Your task to perform on an android device: Open Chrome and go to the settings page Image 0: 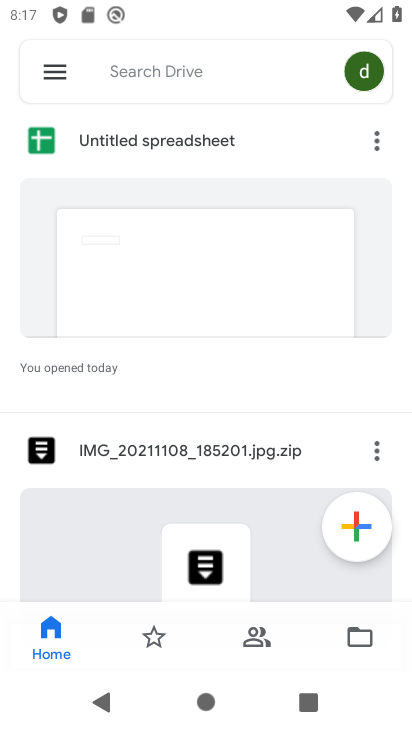
Step 0: press home button
Your task to perform on an android device: Open Chrome and go to the settings page Image 1: 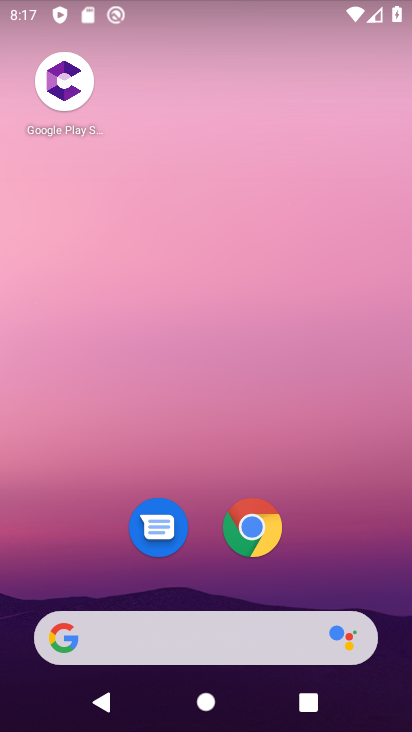
Step 1: click (256, 523)
Your task to perform on an android device: Open Chrome and go to the settings page Image 2: 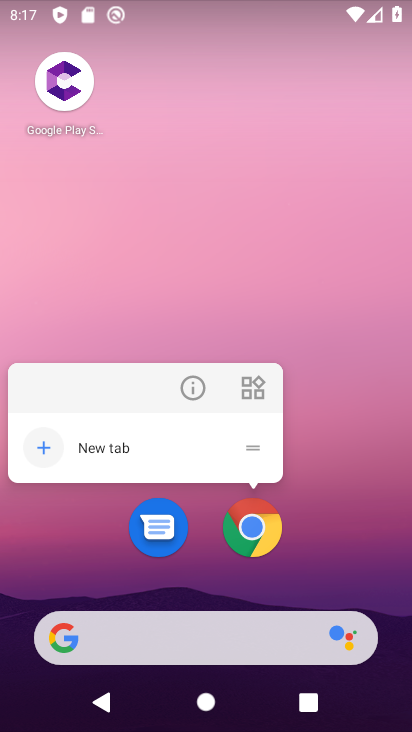
Step 2: click (256, 523)
Your task to perform on an android device: Open Chrome and go to the settings page Image 3: 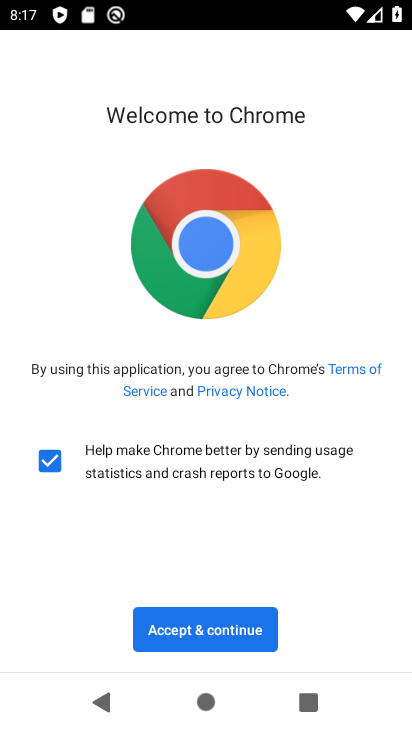
Step 3: click (168, 617)
Your task to perform on an android device: Open Chrome and go to the settings page Image 4: 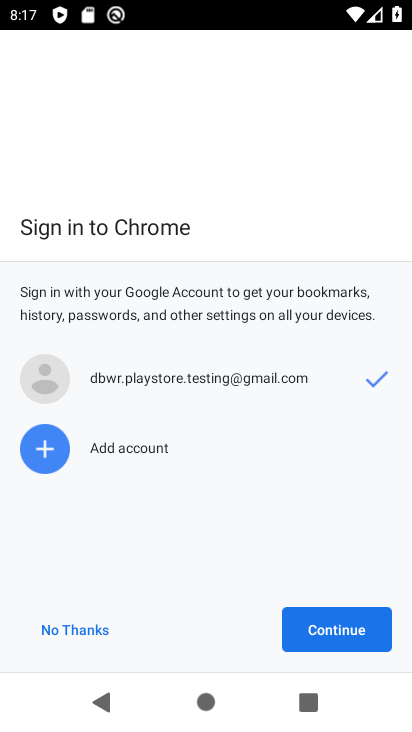
Step 4: click (352, 624)
Your task to perform on an android device: Open Chrome and go to the settings page Image 5: 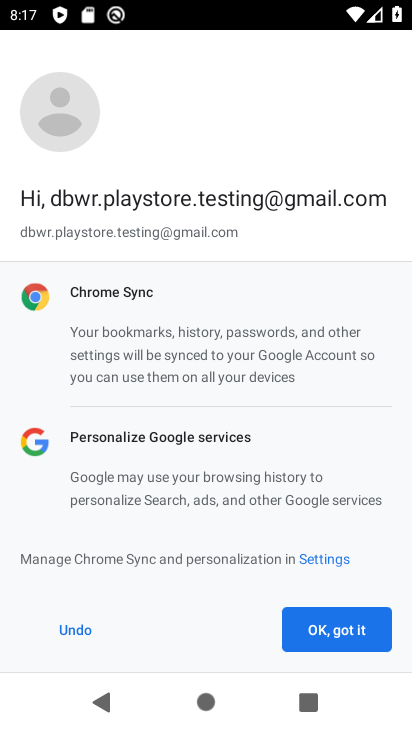
Step 5: click (351, 620)
Your task to perform on an android device: Open Chrome and go to the settings page Image 6: 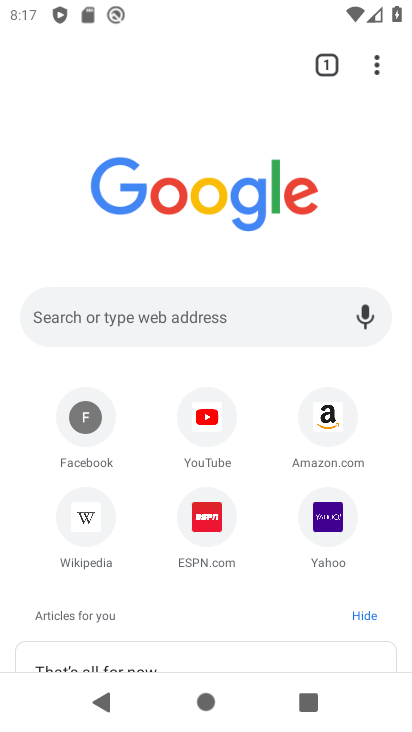
Step 6: click (371, 72)
Your task to perform on an android device: Open Chrome and go to the settings page Image 7: 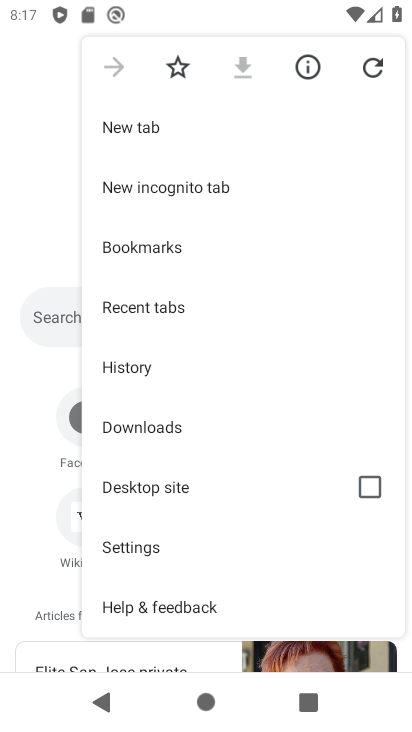
Step 7: click (157, 546)
Your task to perform on an android device: Open Chrome and go to the settings page Image 8: 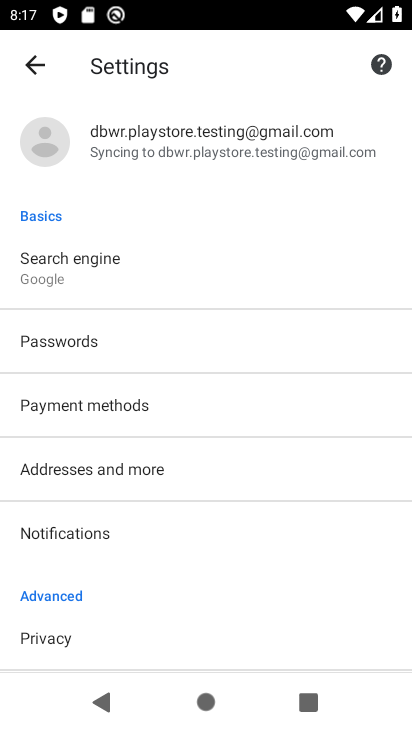
Step 8: task complete